Your task to perform on an android device: set the stopwatch Image 0: 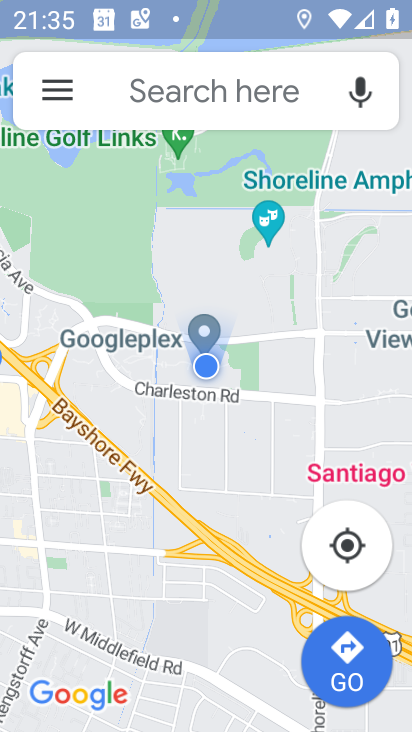
Step 0: press home button
Your task to perform on an android device: set the stopwatch Image 1: 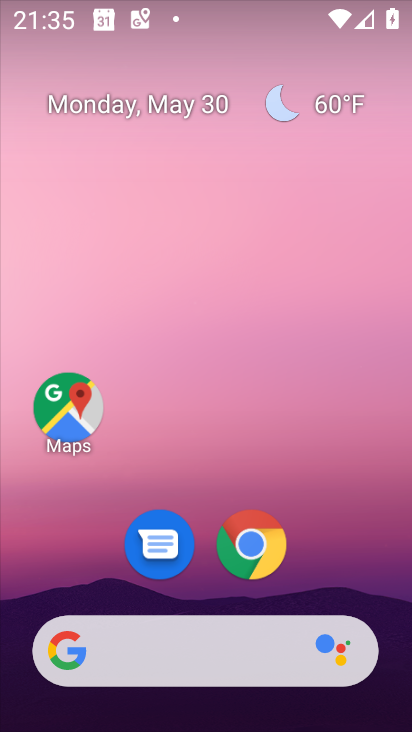
Step 1: drag from (324, 572) to (213, 180)
Your task to perform on an android device: set the stopwatch Image 2: 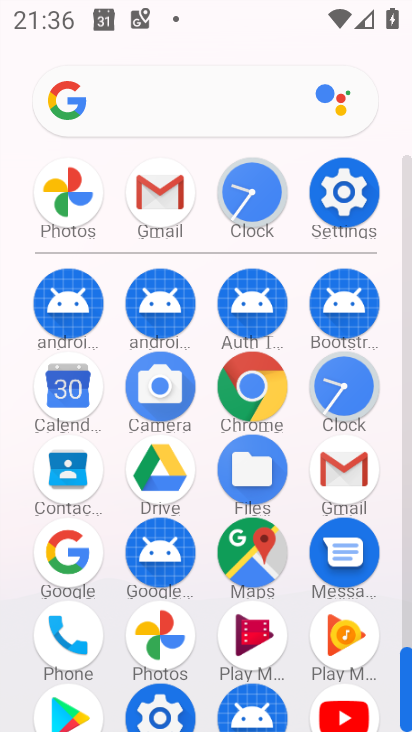
Step 2: click (251, 195)
Your task to perform on an android device: set the stopwatch Image 3: 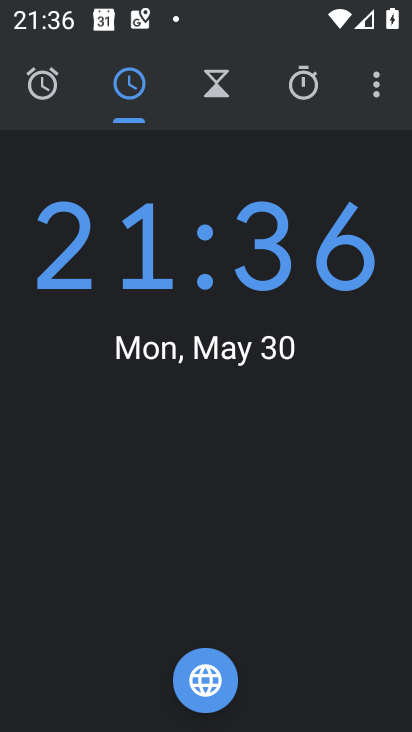
Step 3: click (297, 88)
Your task to perform on an android device: set the stopwatch Image 4: 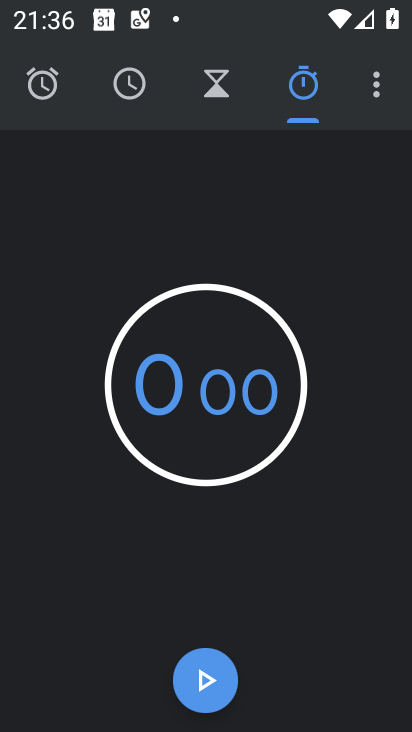
Step 4: click (209, 678)
Your task to perform on an android device: set the stopwatch Image 5: 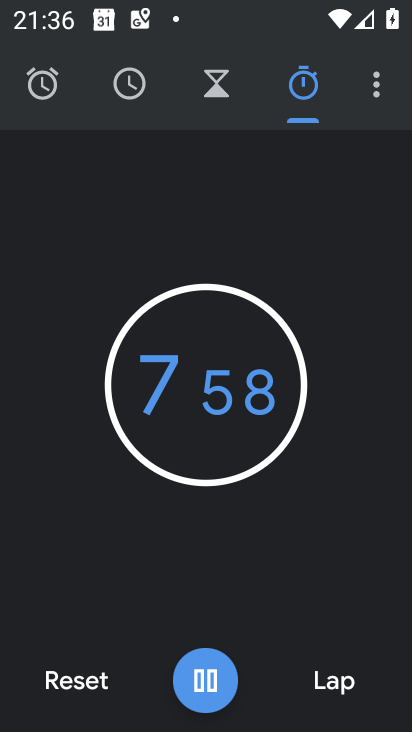
Step 5: click (210, 682)
Your task to perform on an android device: set the stopwatch Image 6: 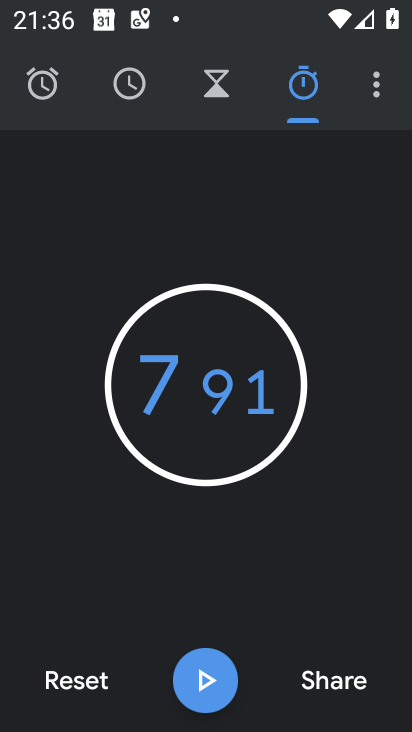
Step 6: task complete